Your task to perform on an android device: find snoozed emails in the gmail app Image 0: 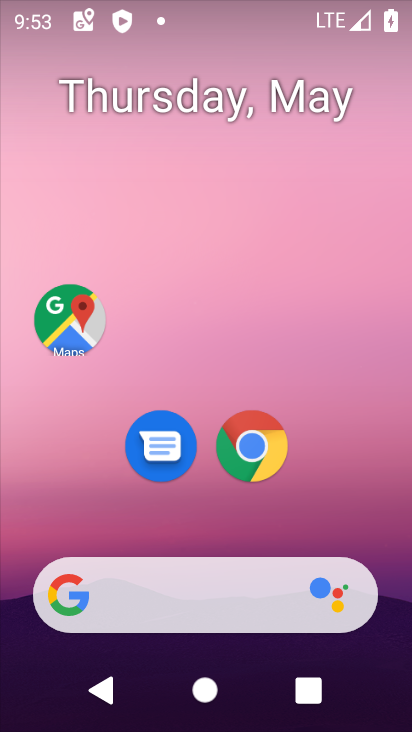
Step 0: drag from (385, 600) to (315, 65)
Your task to perform on an android device: find snoozed emails in the gmail app Image 1: 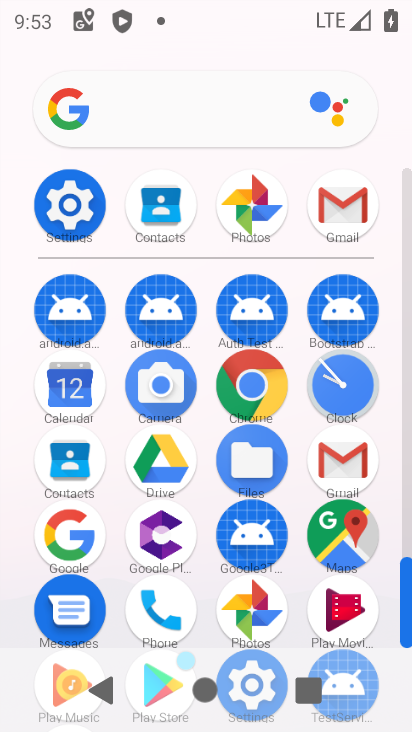
Step 1: click (340, 455)
Your task to perform on an android device: find snoozed emails in the gmail app Image 2: 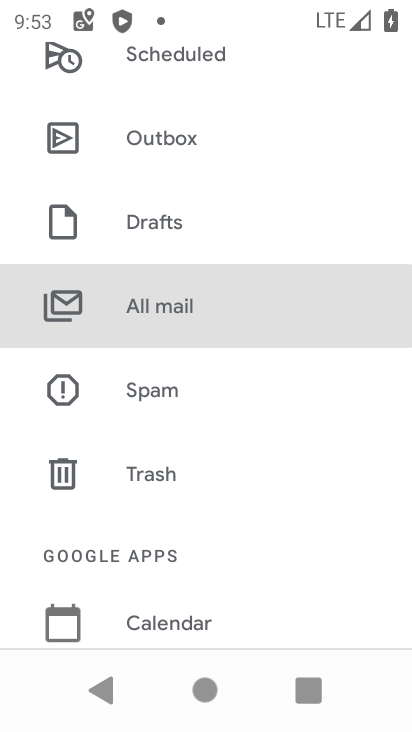
Step 2: drag from (258, 170) to (240, 493)
Your task to perform on an android device: find snoozed emails in the gmail app Image 3: 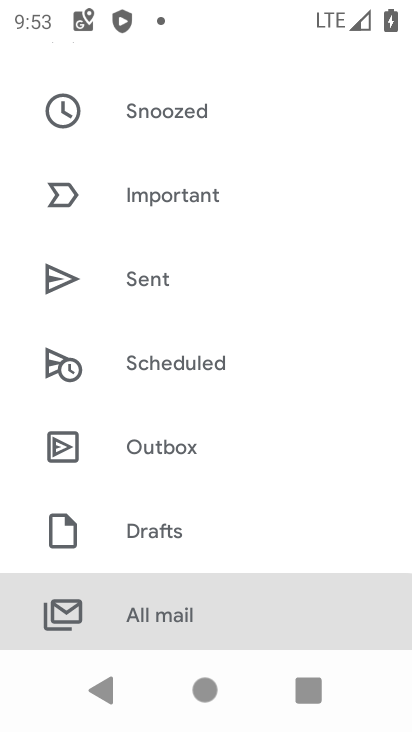
Step 3: drag from (293, 254) to (264, 585)
Your task to perform on an android device: find snoozed emails in the gmail app Image 4: 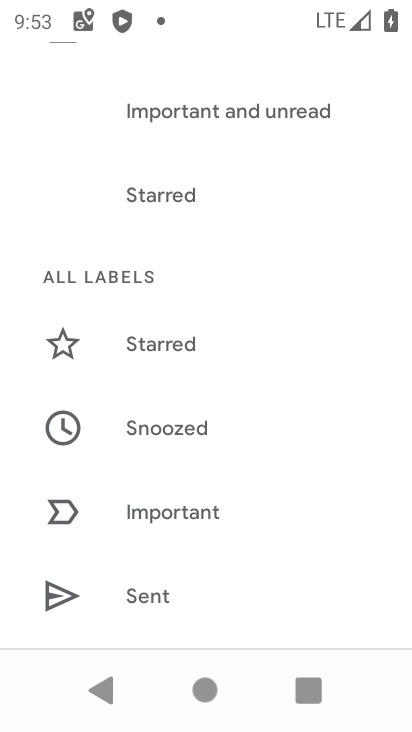
Step 4: click (164, 425)
Your task to perform on an android device: find snoozed emails in the gmail app Image 5: 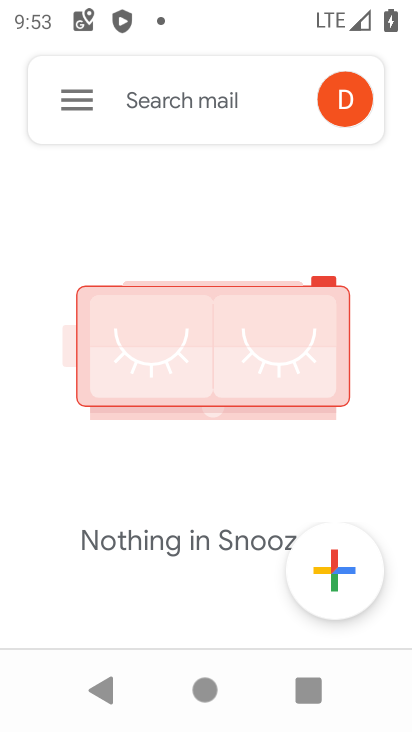
Step 5: task complete